Your task to perform on an android device: change alarm snooze length Image 0: 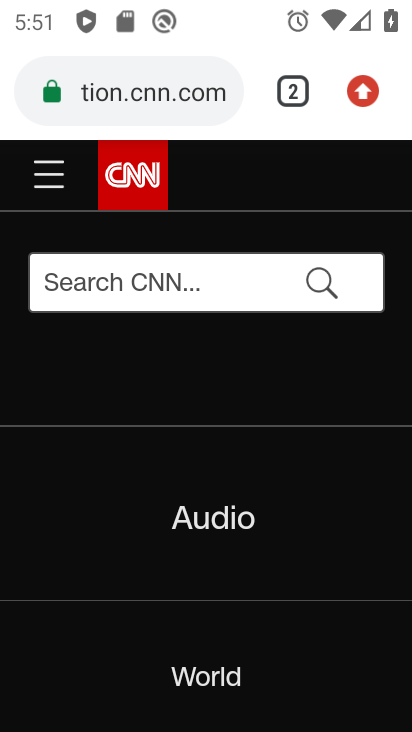
Step 0: press home button
Your task to perform on an android device: change alarm snooze length Image 1: 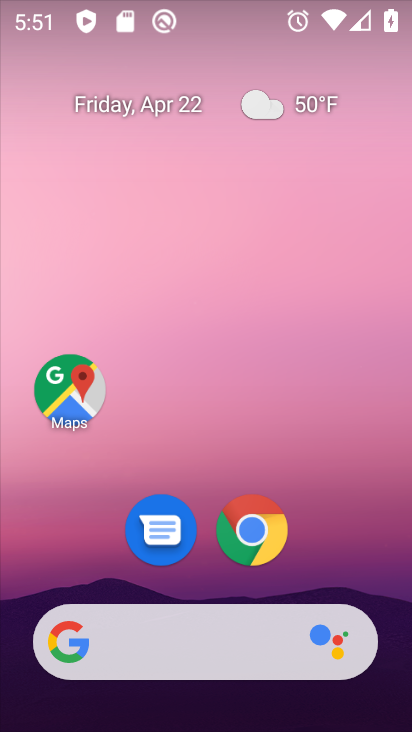
Step 1: drag from (324, 508) to (326, 2)
Your task to perform on an android device: change alarm snooze length Image 2: 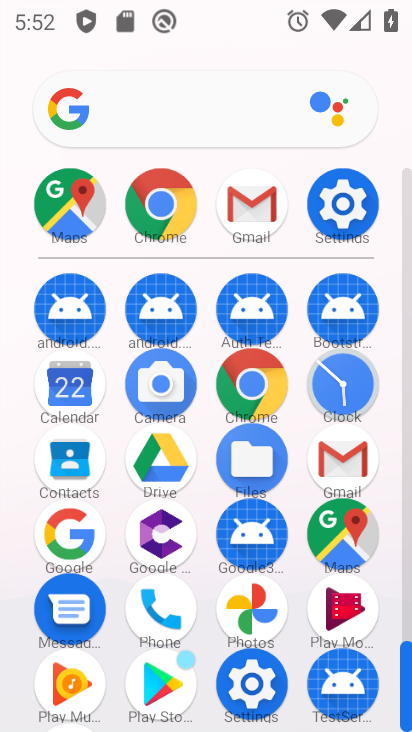
Step 2: click (336, 380)
Your task to perform on an android device: change alarm snooze length Image 3: 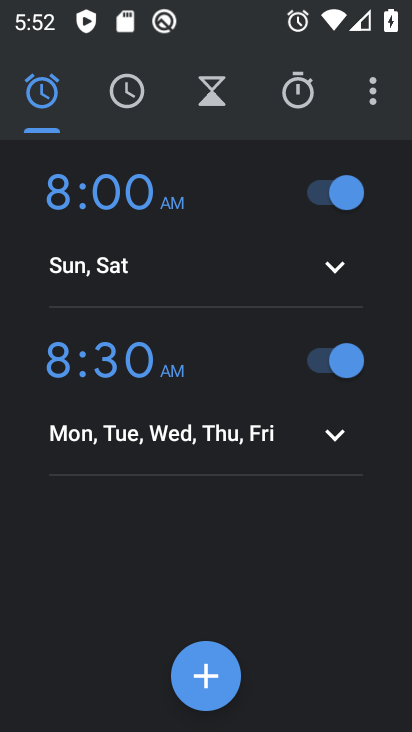
Step 3: click (373, 80)
Your task to perform on an android device: change alarm snooze length Image 4: 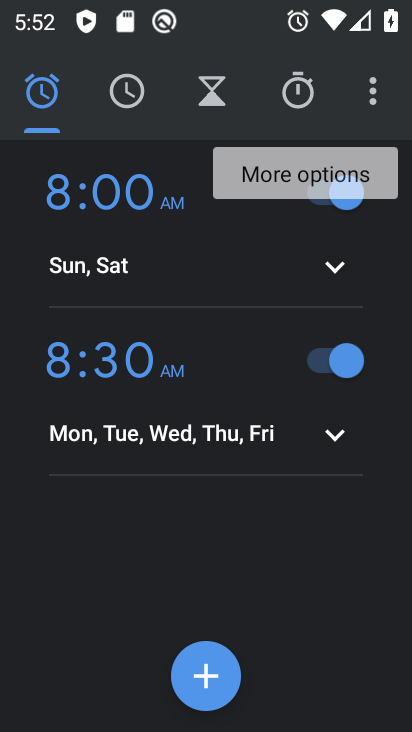
Step 4: click (376, 101)
Your task to perform on an android device: change alarm snooze length Image 5: 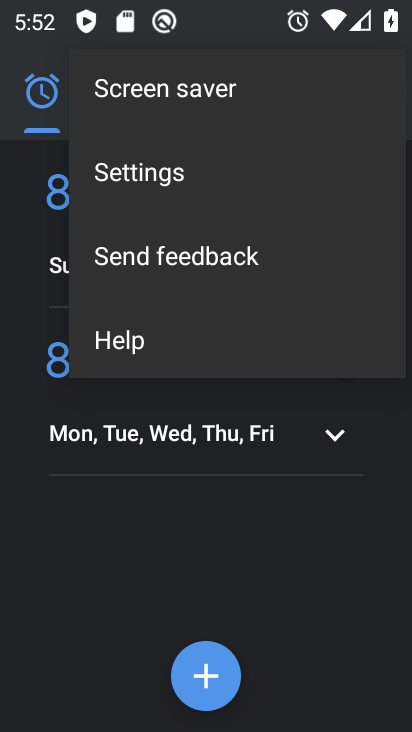
Step 5: click (376, 101)
Your task to perform on an android device: change alarm snooze length Image 6: 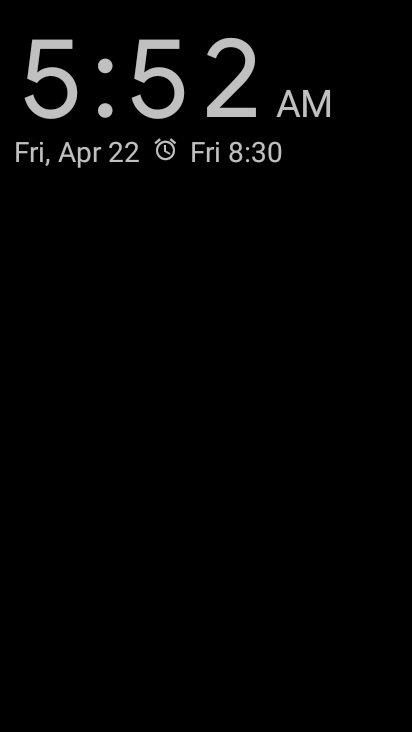
Step 6: press back button
Your task to perform on an android device: change alarm snooze length Image 7: 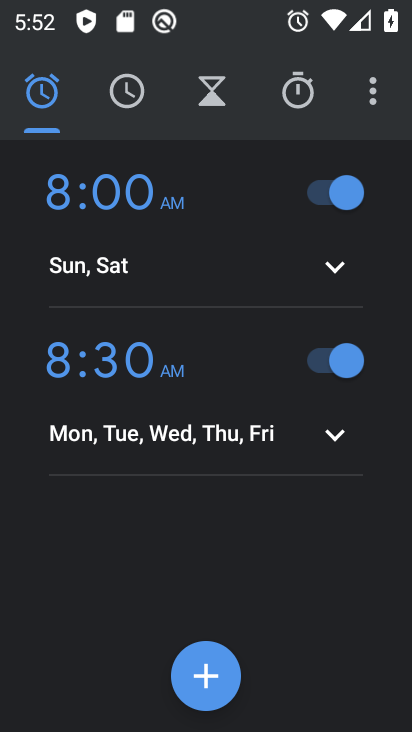
Step 7: click (374, 85)
Your task to perform on an android device: change alarm snooze length Image 8: 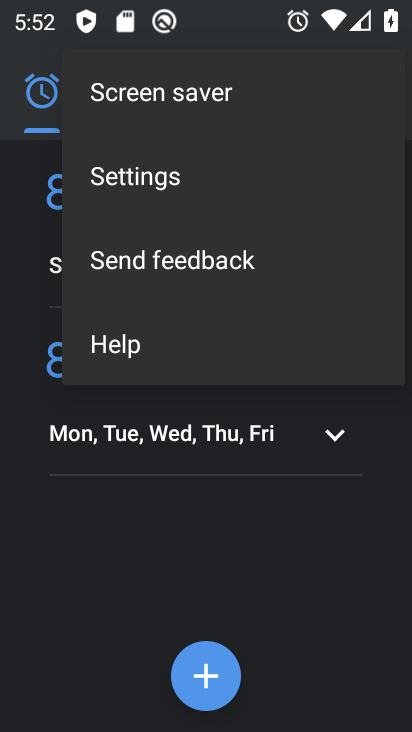
Step 8: click (174, 175)
Your task to perform on an android device: change alarm snooze length Image 9: 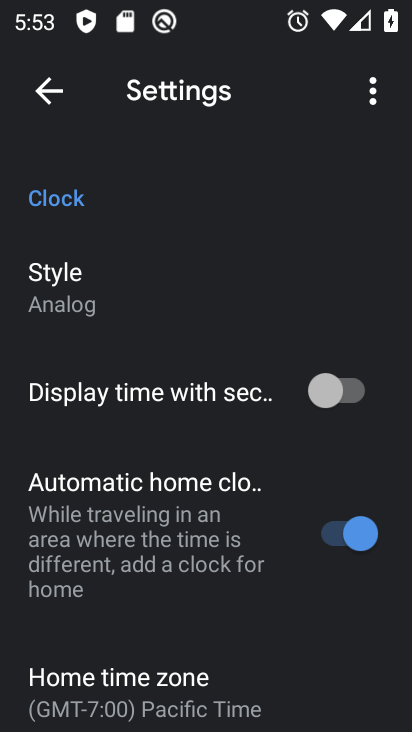
Step 9: drag from (228, 561) to (280, 133)
Your task to perform on an android device: change alarm snooze length Image 10: 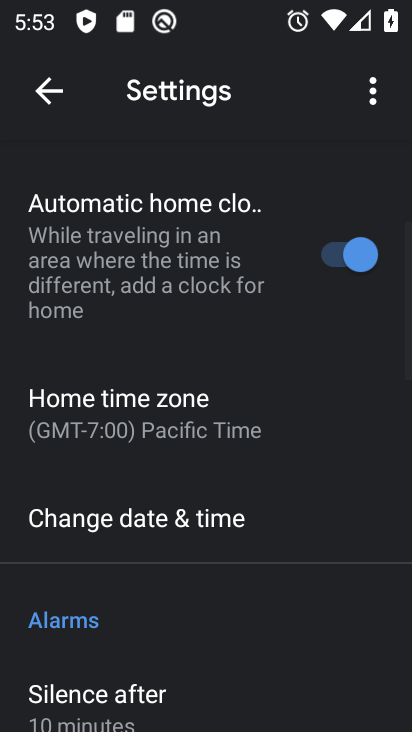
Step 10: drag from (255, 585) to (321, 164)
Your task to perform on an android device: change alarm snooze length Image 11: 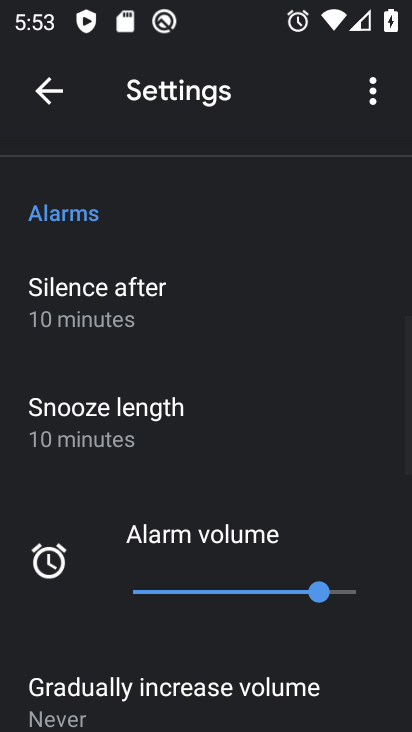
Step 11: drag from (227, 555) to (241, 305)
Your task to perform on an android device: change alarm snooze length Image 12: 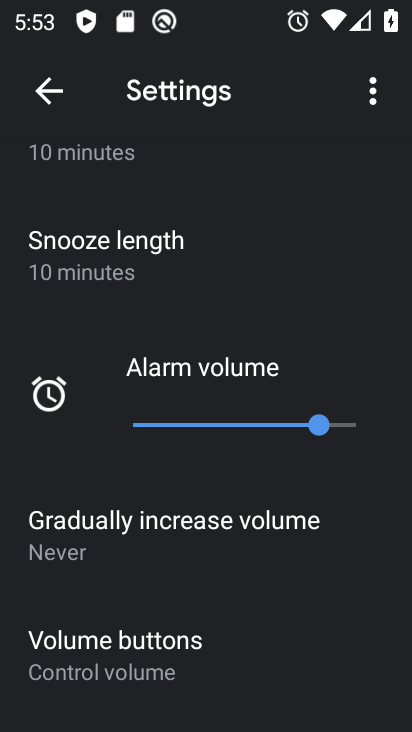
Step 12: click (223, 288)
Your task to perform on an android device: change alarm snooze length Image 13: 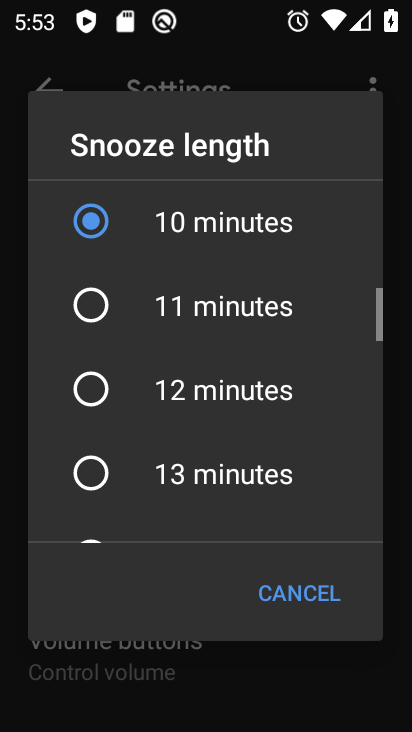
Step 13: click (210, 380)
Your task to perform on an android device: change alarm snooze length Image 14: 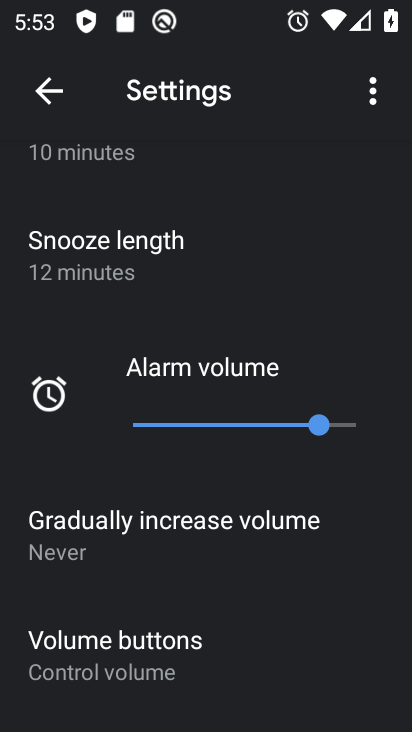
Step 14: task complete